Your task to perform on an android device: Open Google Image 0: 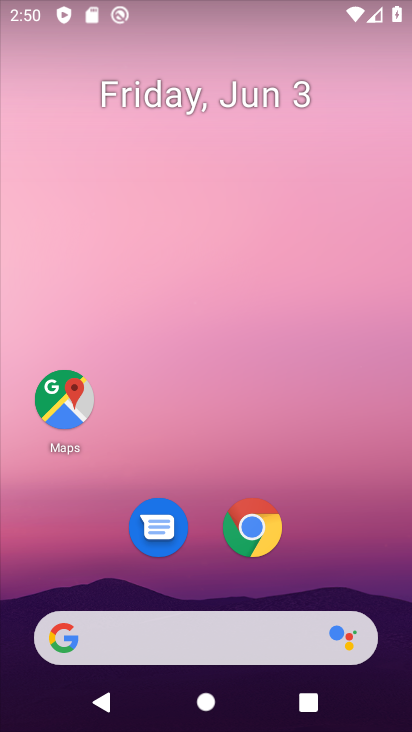
Step 0: drag from (162, 578) to (215, 94)
Your task to perform on an android device: Open Google Image 1: 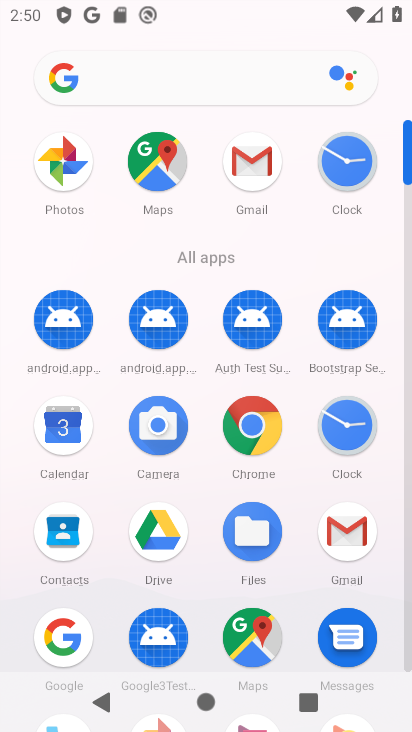
Step 1: drag from (107, 630) to (167, 369)
Your task to perform on an android device: Open Google Image 2: 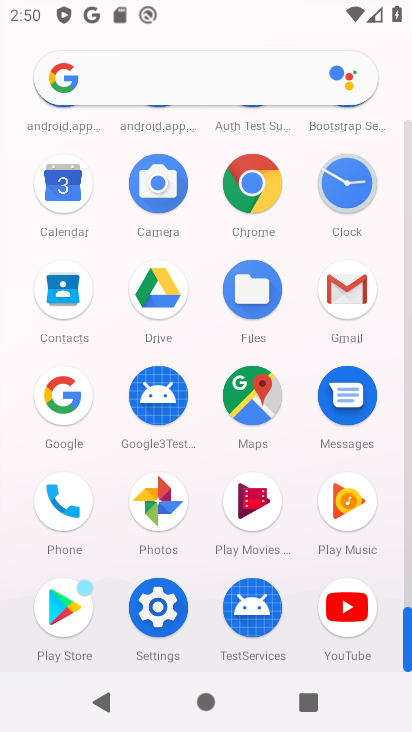
Step 2: click (66, 410)
Your task to perform on an android device: Open Google Image 3: 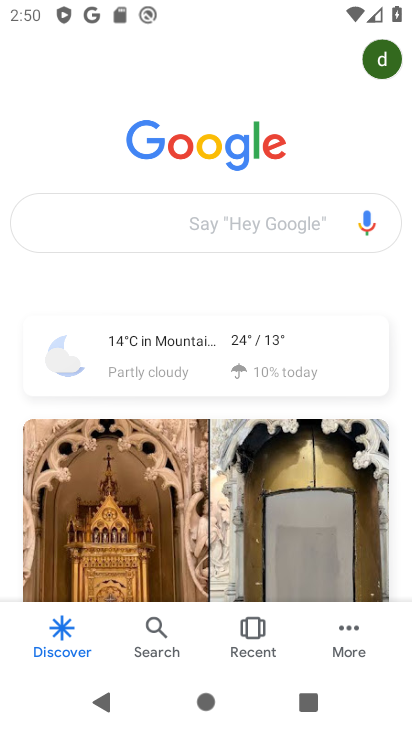
Step 3: task complete